Your task to perform on an android device: Clear the shopping cart on ebay.com. Search for acer predator on ebay.com, select the first entry, add it to the cart, then select checkout. Image 0: 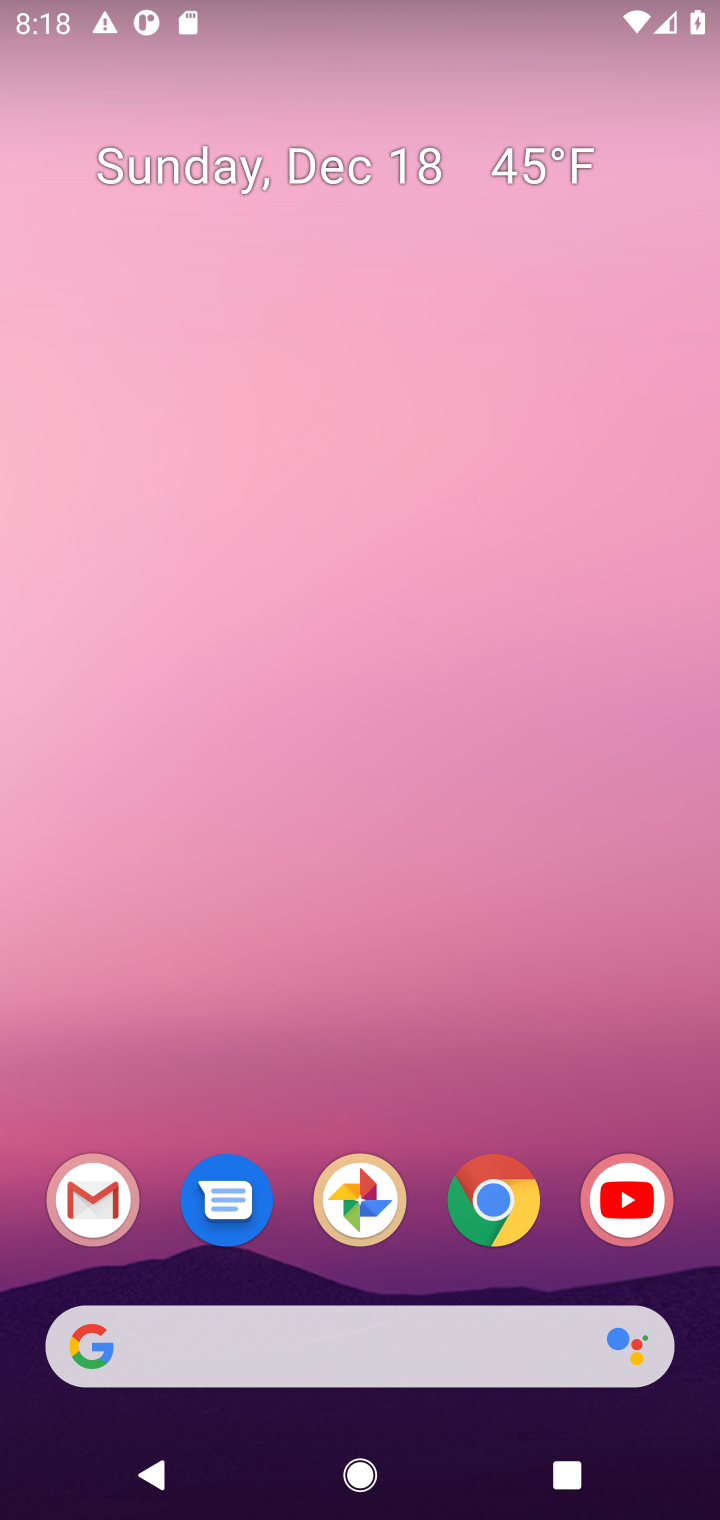
Step 0: click (499, 1206)
Your task to perform on an android device: Clear the shopping cart on ebay.com. Search for acer predator on ebay.com, select the first entry, add it to the cart, then select checkout. Image 1: 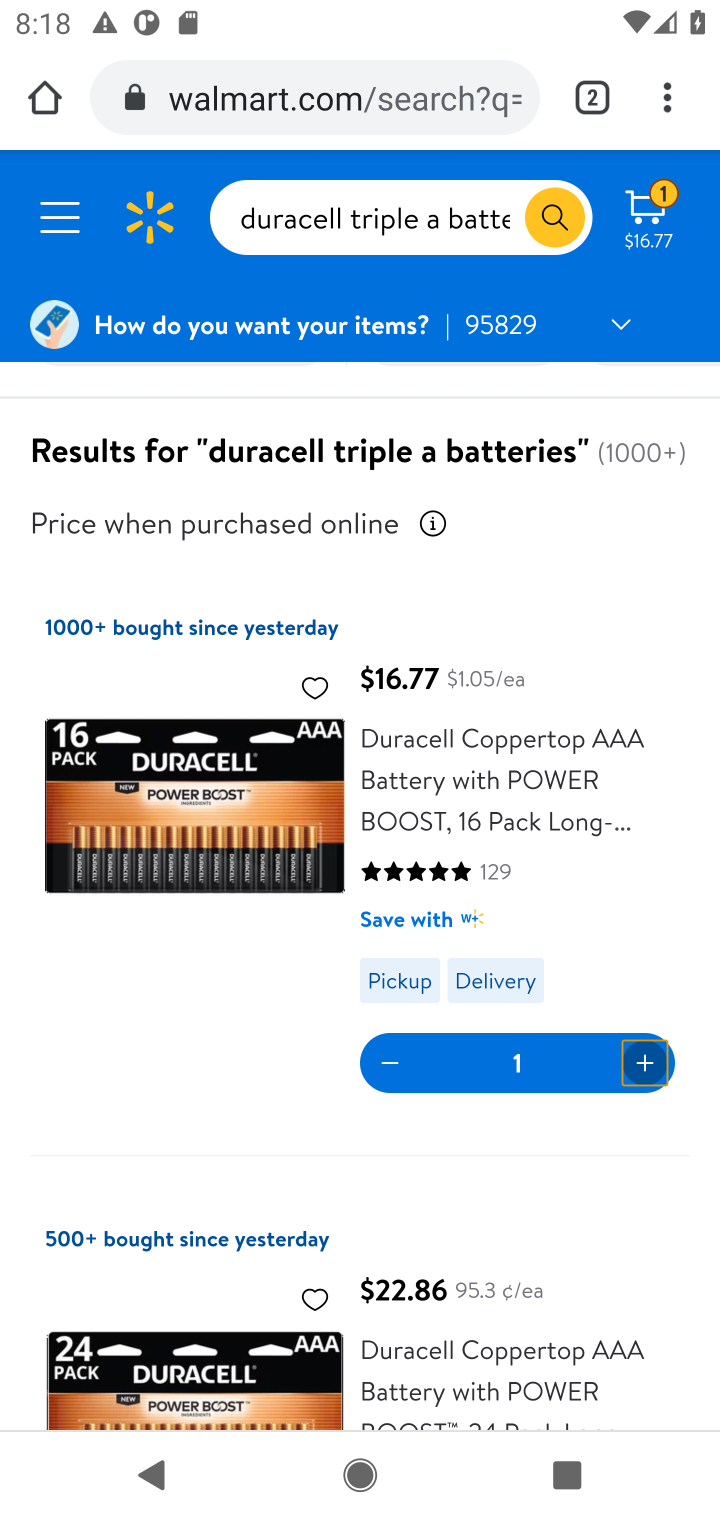
Step 1: click (300, 100)
Your task to perform on an android device: Clear the shopping cart on ebay.com. Search for acer predator on ebay.com, select the first entry, add it to the cart, then select checkout. Image 2: 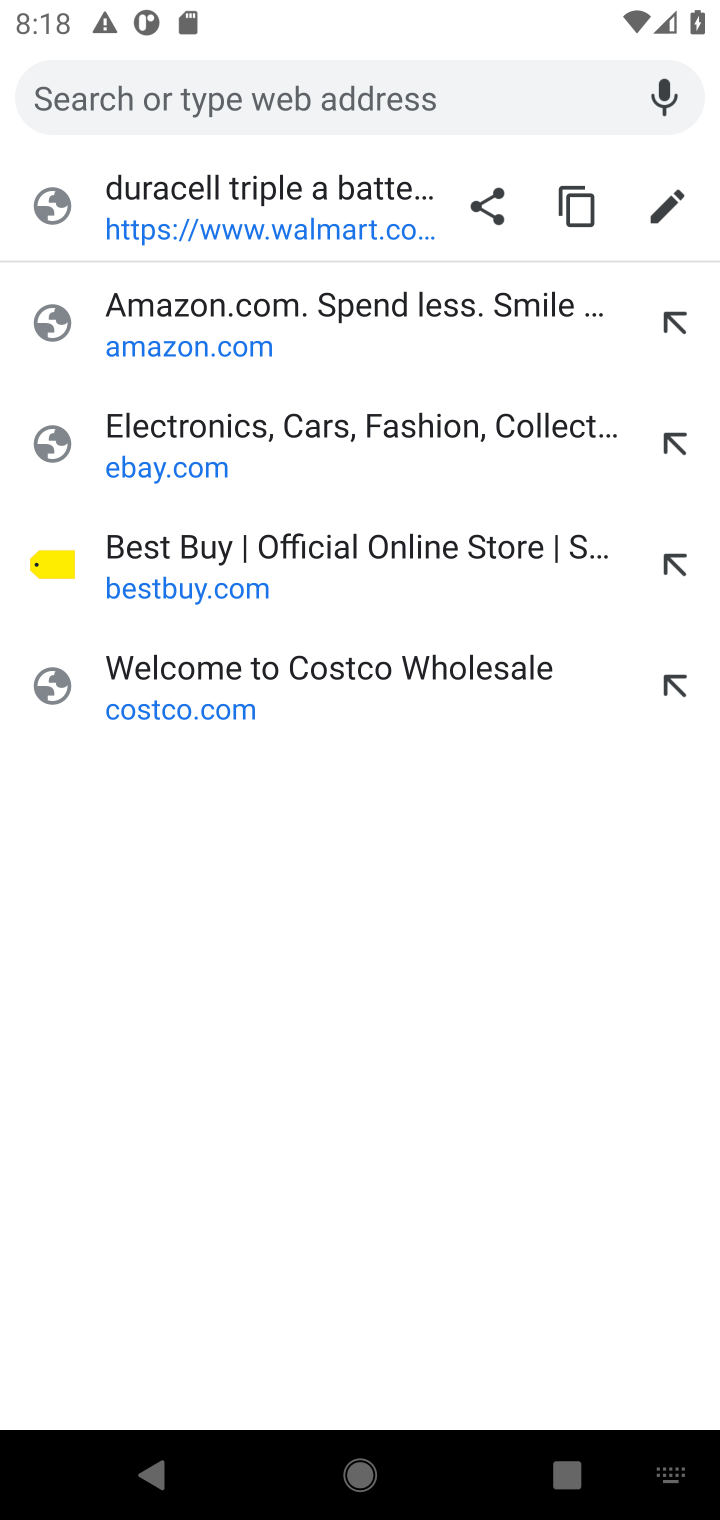
Step 2: click (164, 439)
Your task to perform on an android device: Clear the shopping cart on ebay.com. Search for acer predator on ebay.com, select the first entry, add it to the cart, then select checkout. Image 3: 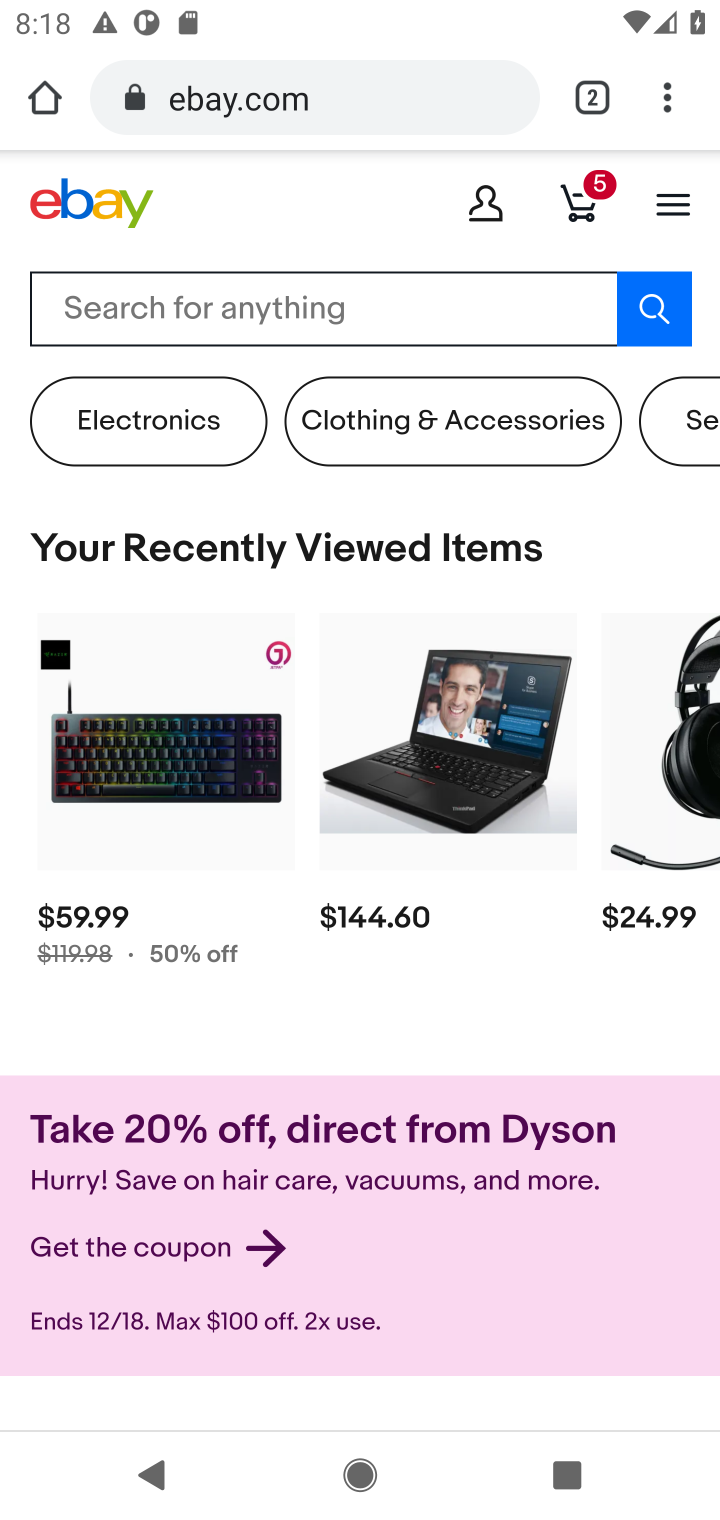
Step 3: click (581, 197)
Your task to perform on an android device: Clear the shopping cart on ebay.com. Search for acer predator on ebay.com, select the first entry, add it to the cart, then select checkout. Image 4: 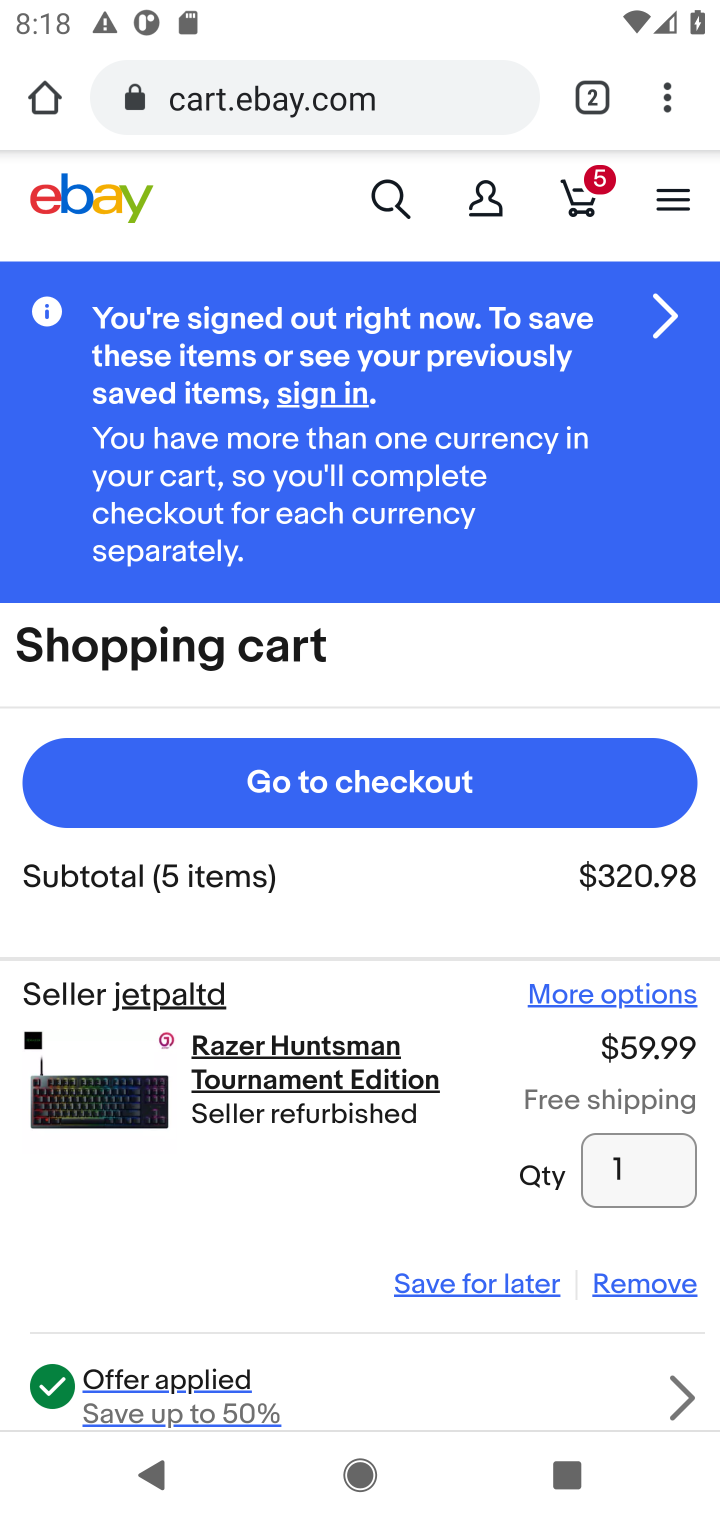
Step 4: click (610, 1286)
Your task to perform on an android device: Clear the shopping cart on ebay.com. Search for acer predator on ebay.com, select the first entry, add it to the cart, then select checkout. Image 5: 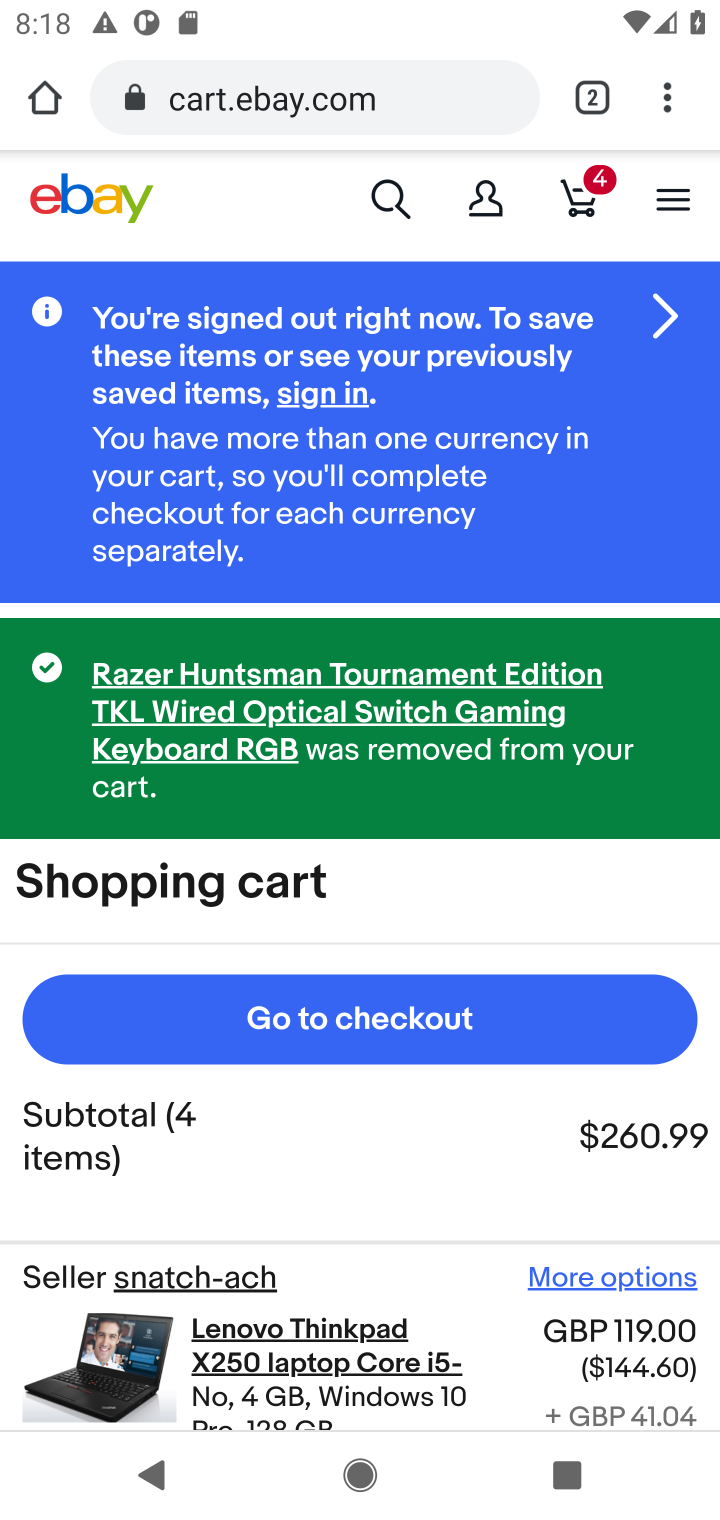
Step 5: drag from (438, 1131) to (395, 459)
Your task to perform on an android device: Clear the shopping cart on ebay.com. Search for acer predator on ebay.com, select the first entry, add it to the cart, then select checkout. Image 6: 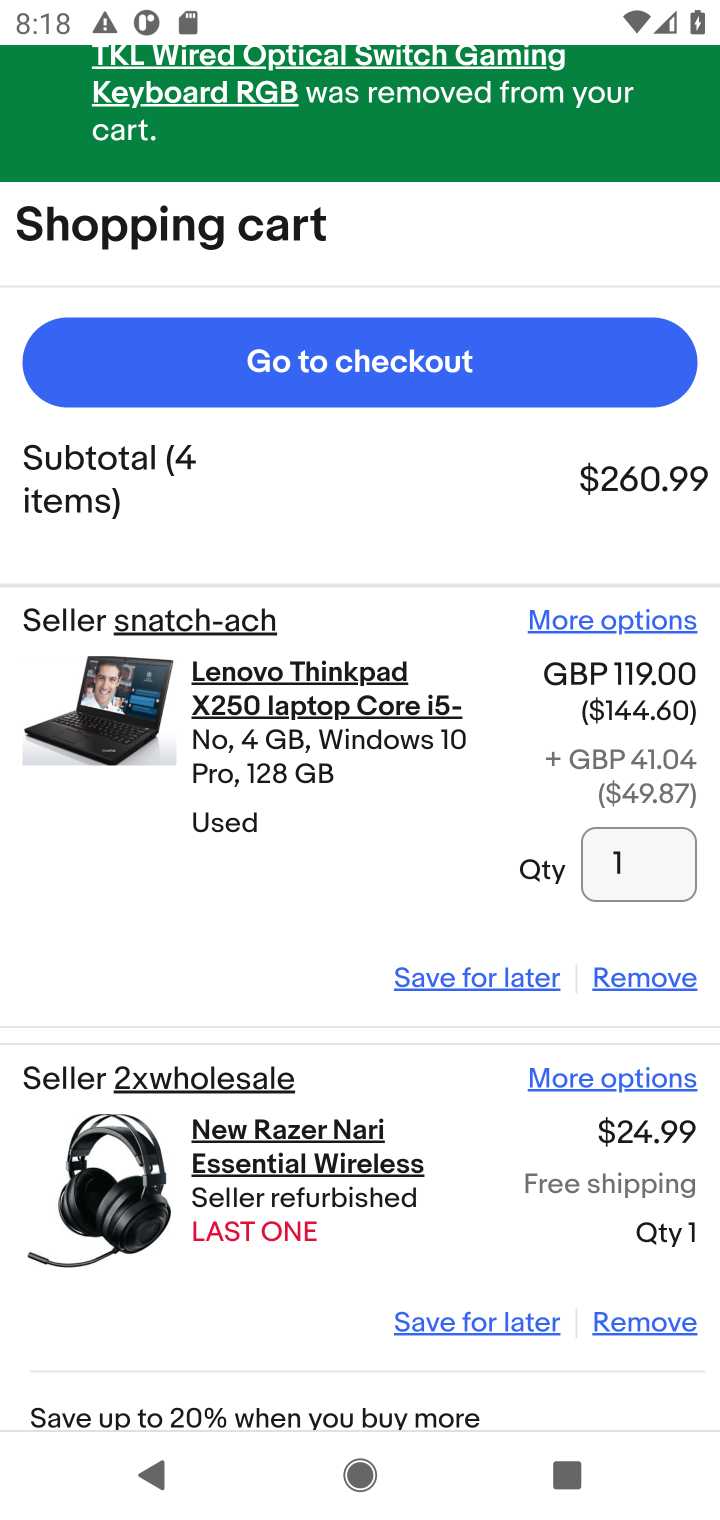
Step 6: click (630, 979)
Your task to perform on an android device: Clear the shopping cart on ebay.com. Search for acer predator on ebay.com, select the first entry, add it to the cart, then select checkout. Image 7: 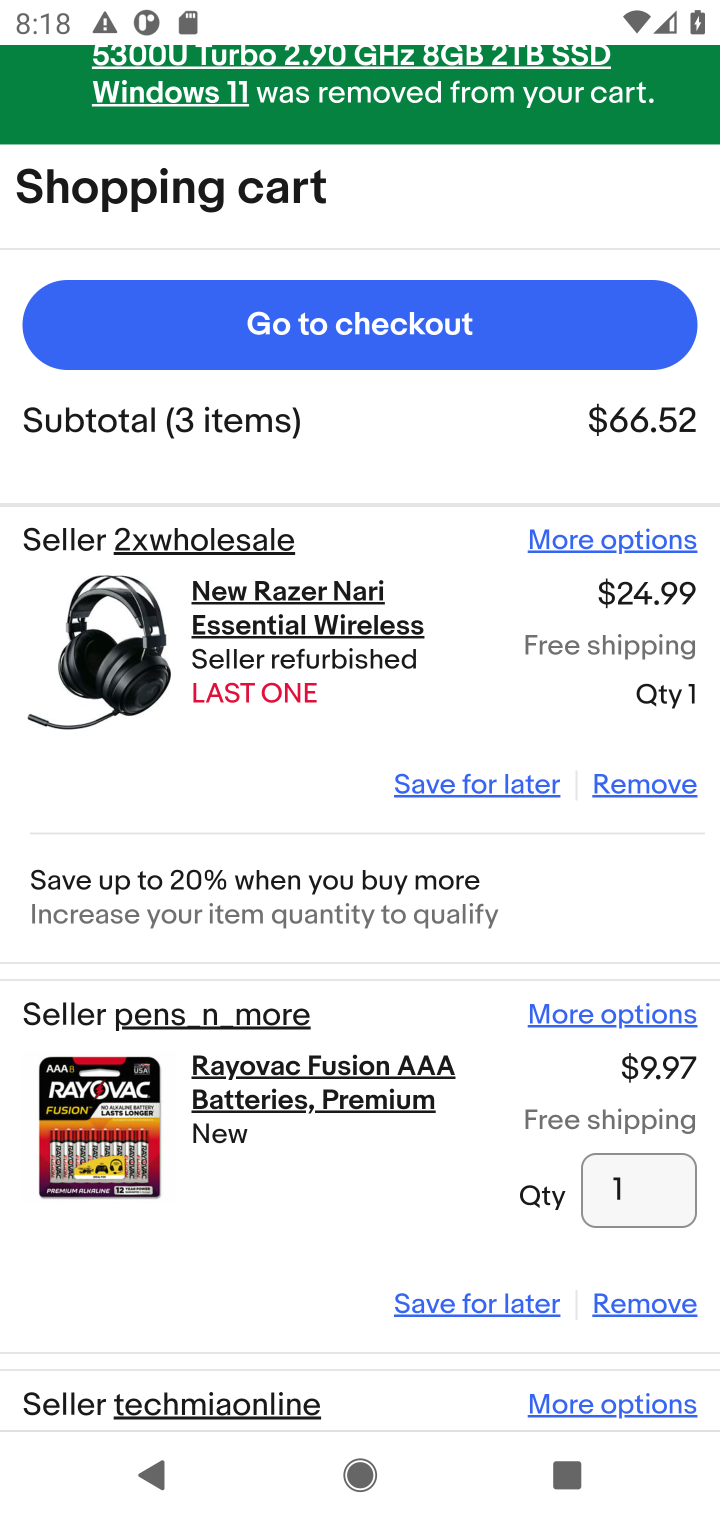
Step 7: click (643, 783)
Your task to perform on an android device: Clear the shopping cart on ebay.com. Search for acer predator on ebay.com, select the first entry, add it to the cart, then select checkout. Image 8: 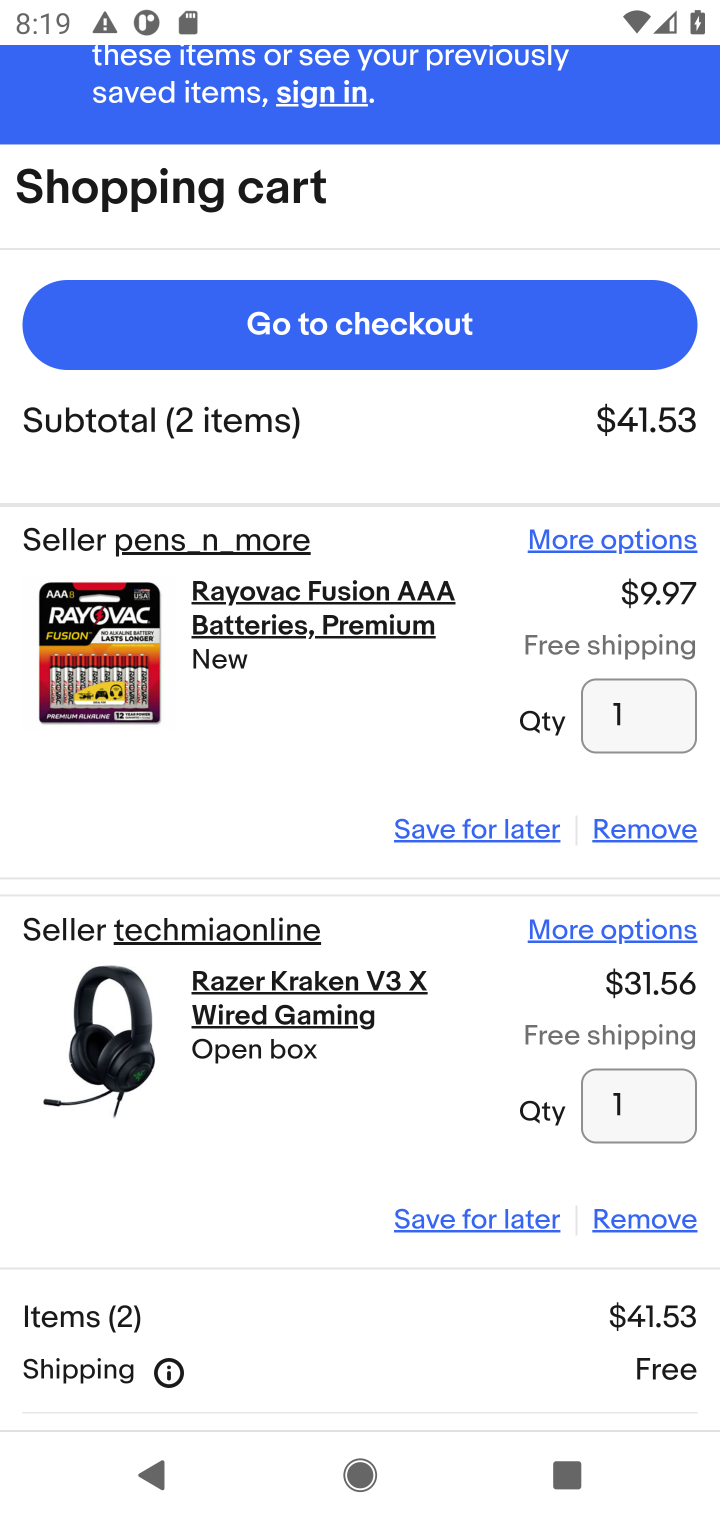
Step 8: click (637, 830)
Your task to perform on an android device: Clear the shopping cart on ebay.com. Search for acer predator on ebay.com, select the first entry, add it to the cart, then select checkout. Image 9: 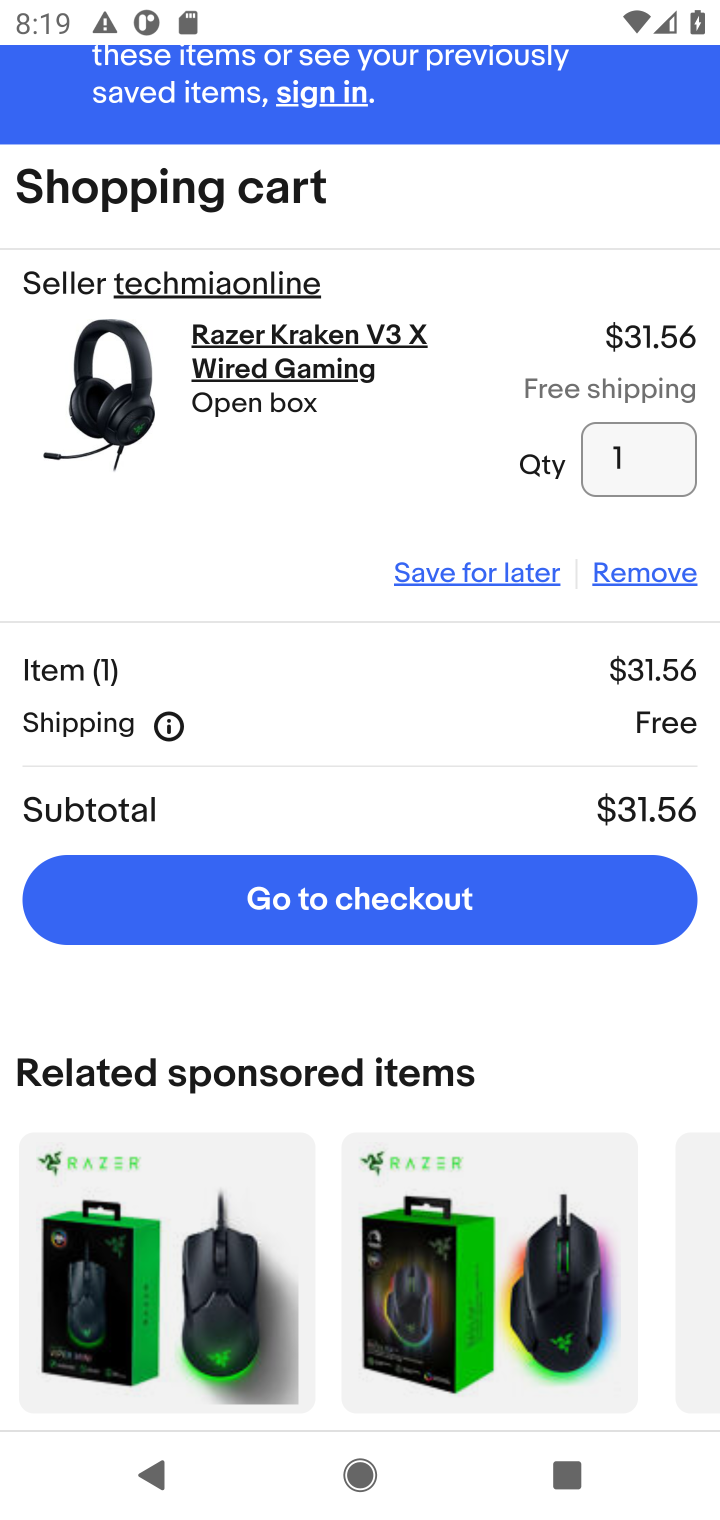
Step 9: click (646, 567)
Your task to perform on an android device: Clear the shopping cart on ebay.com. Search for acer predator on ebay.com, select the first entry, add it to the cart, then select checkout. Image 10: 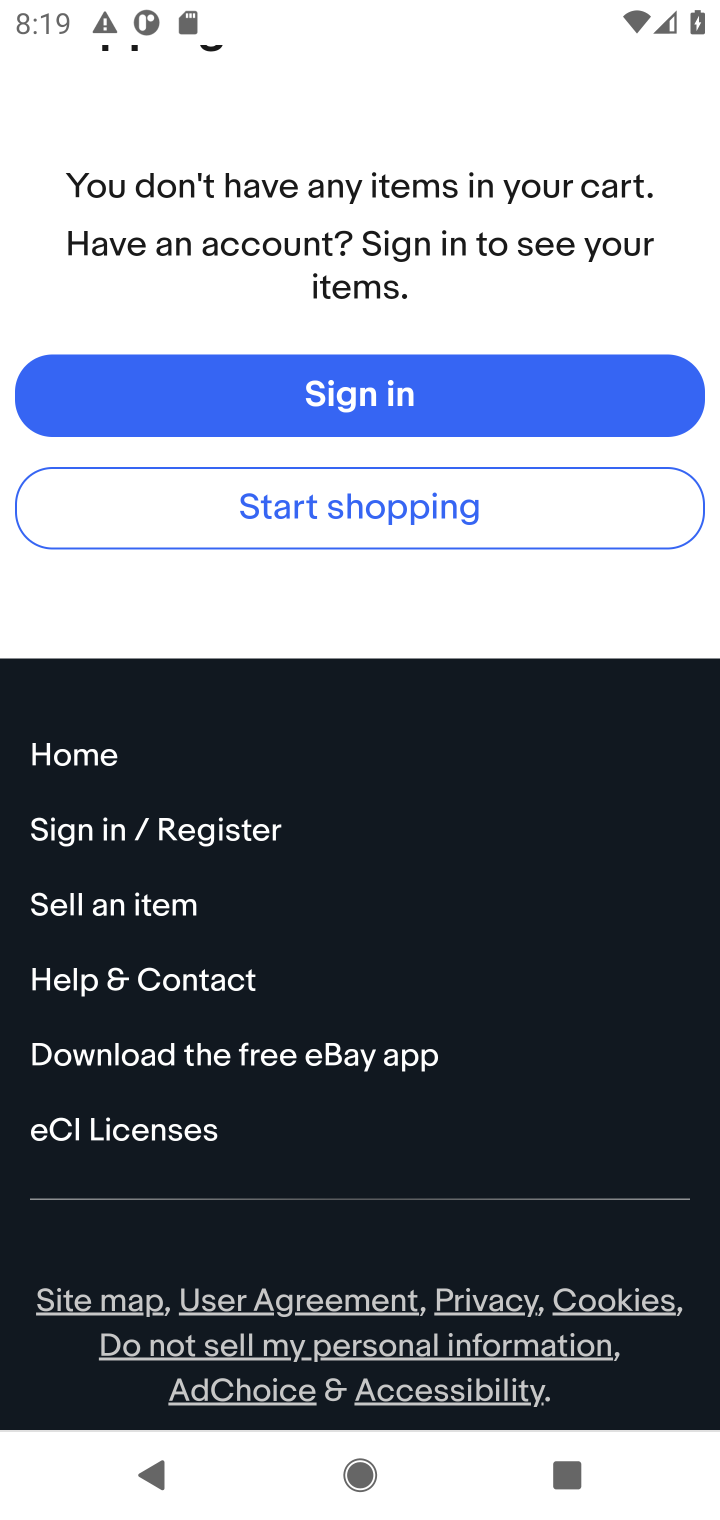
Step 10: drag from (566, 517) to (533, 987)
Your task to perform on an android device: Clear the shopping cart on ebay.com. Search for acer predator on ebay.com, select the first entry, add it to the cart, then select checkout. Image 11: 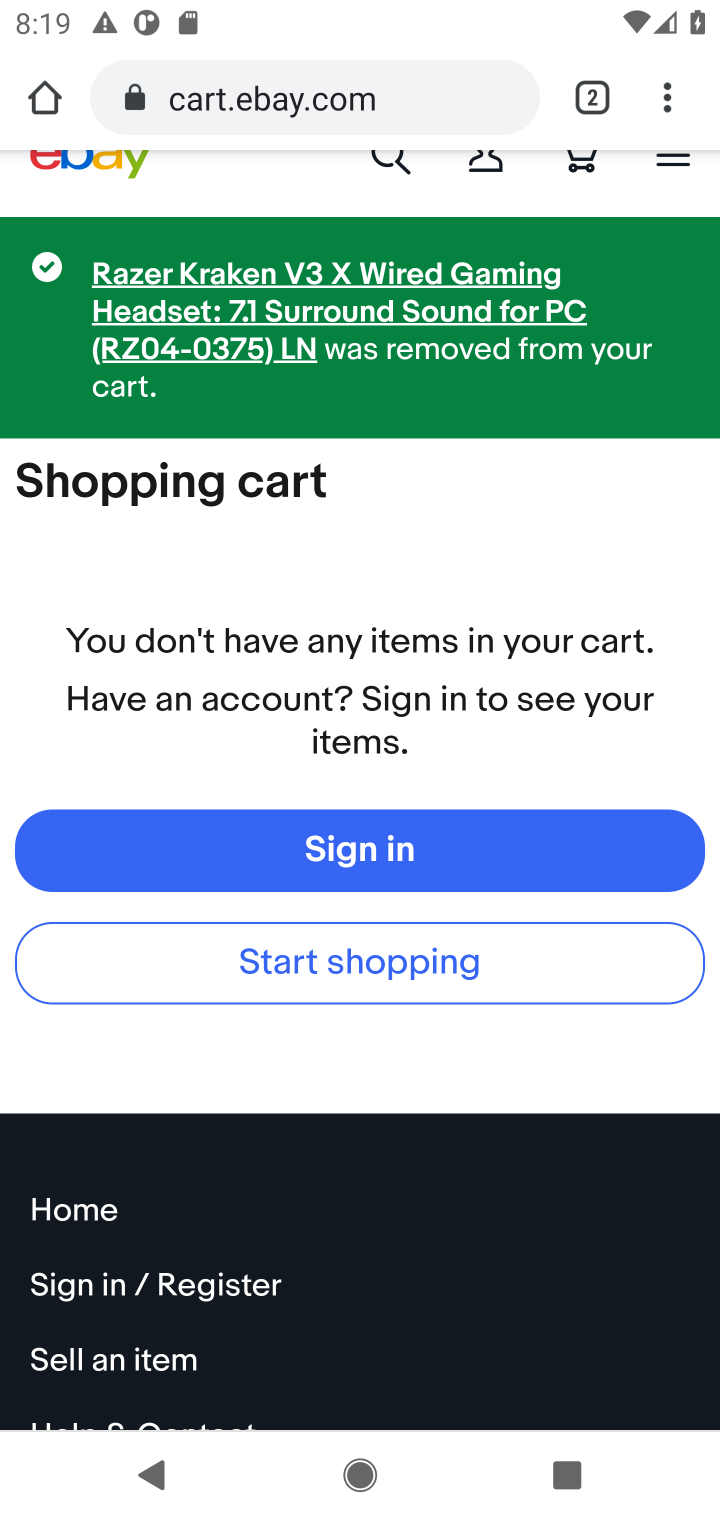
Step 11: drag from (282, 271) to (315, 583)
Your task to perform on an android device: Clear the shopping cart on ebay.com. Search for acer predator on ebay.com, select the first entry, add it to the cart, then select checkout. Image 12: 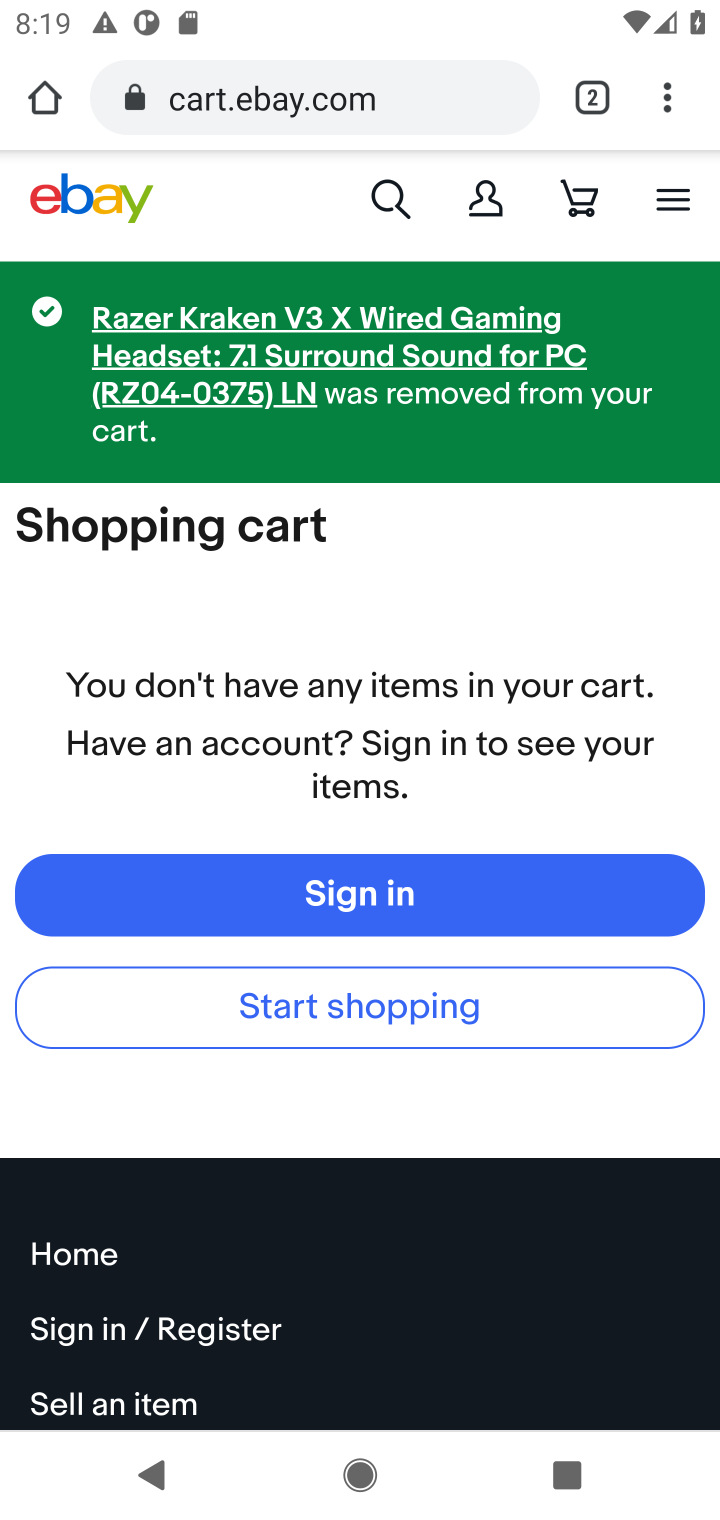
Step 12: click (375, 200)
Your task to perform on an android device: Clear the shopping cart on ebay.com. Search for acer predator on ebay.com, select the first entry, add it to the cart, then select checkout. Image 13: 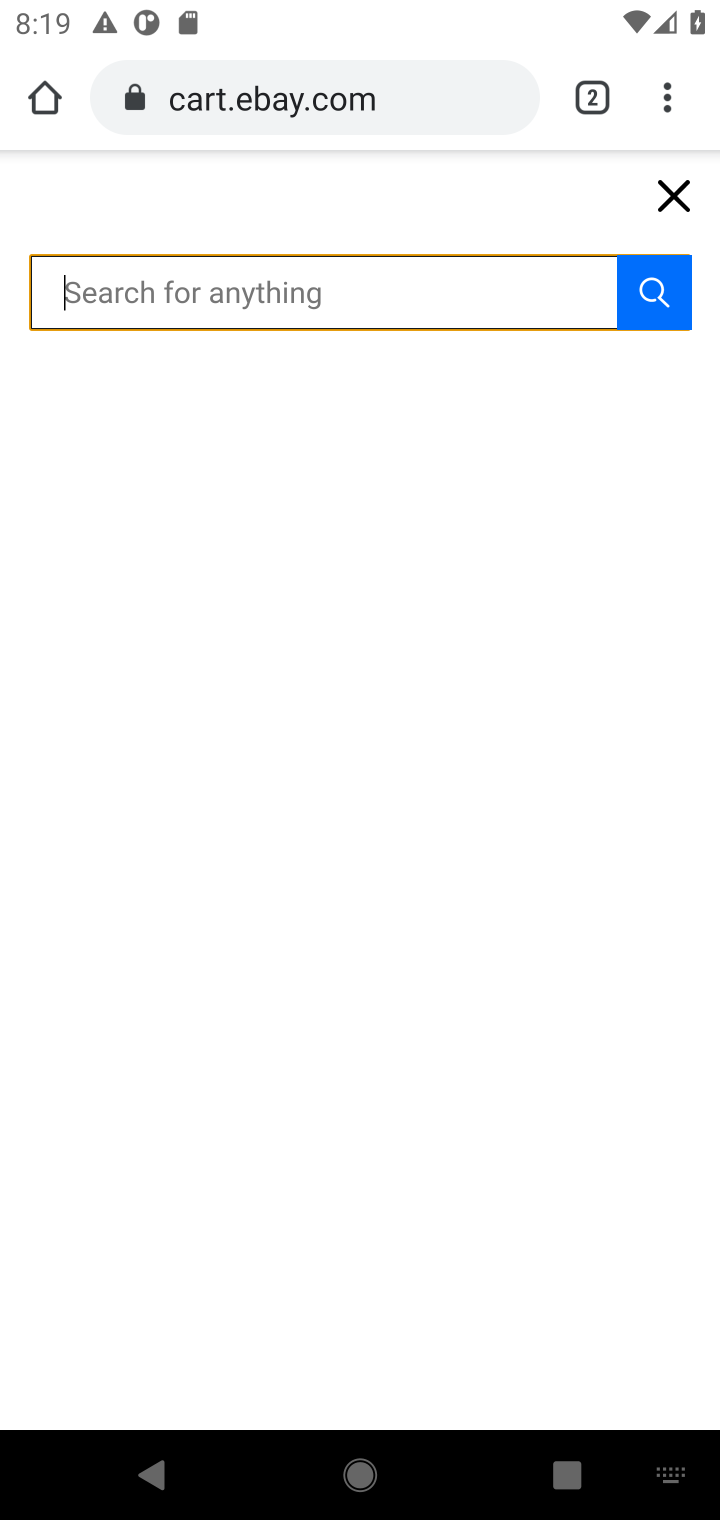
Step 13: type " acer predator"
Your task to perform on an android device: Clear the shopping cart on ebay.com. Search for acer predator on ebay.com, select the first entry, add it to the cart, then select checkout. Image 14: 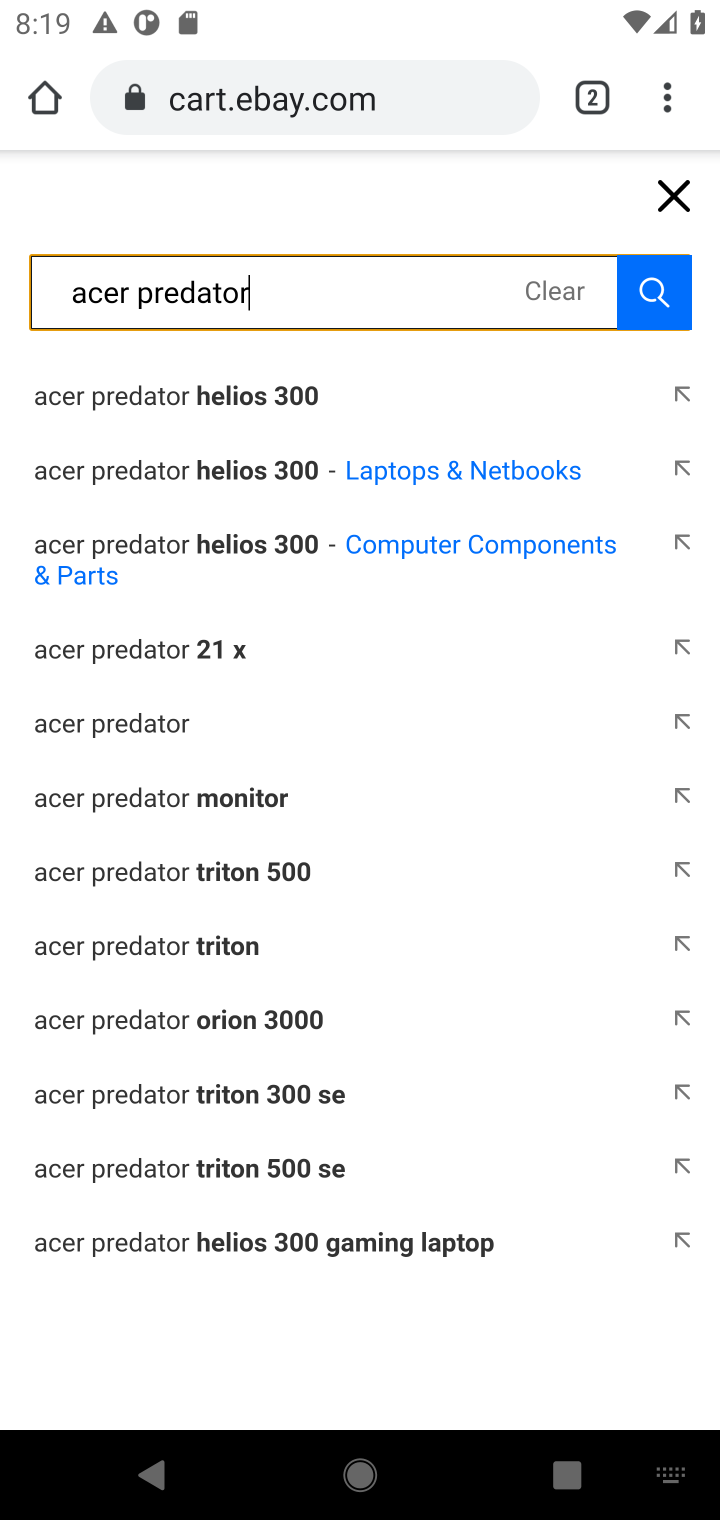
Step 14: click (135, 718)
Your task to perform on an android device: Clear the shopping cart on ebay.com. Search for acer predator on ebay.com, select the first entry, add it to the cart, then select checkout. Image 15: 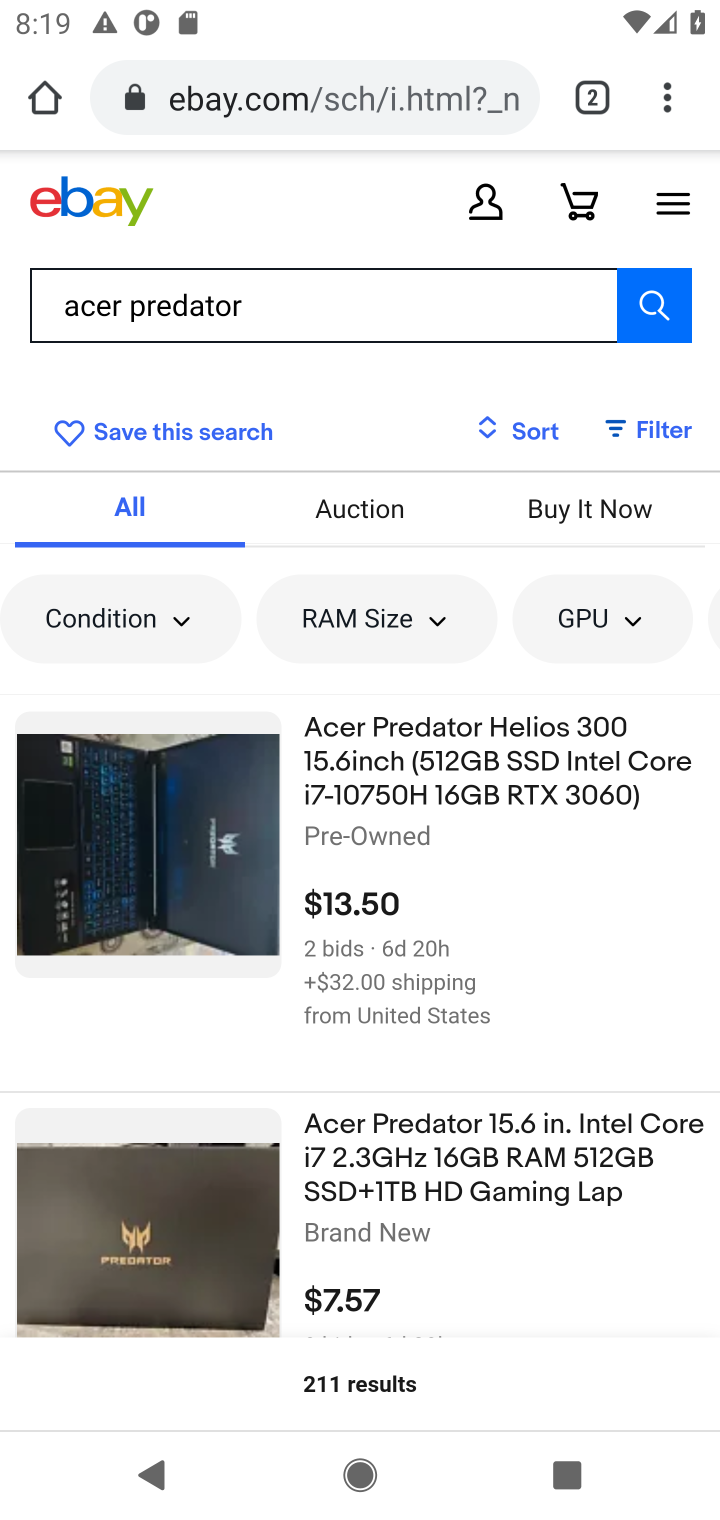
Step 15: click (405, 784)
Your task to perform on an android device: Clear the shopping cart on ebay.com. Search for acer predator on ebay.com, select the first entry, add it to the cart, then select checkout. Image 16: 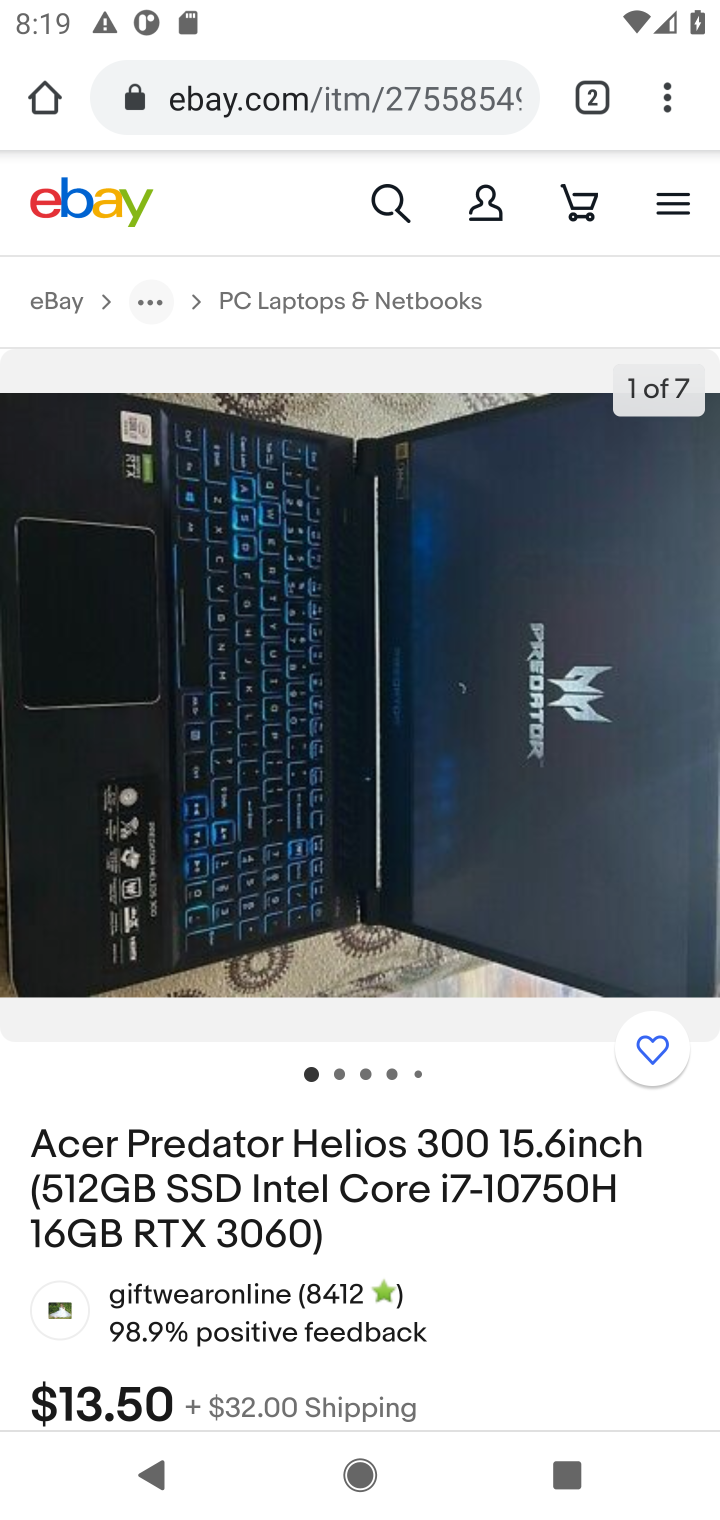
Step 16: task complete